Your task to perform on an android device: turn off translation in the chrome app Image 0: 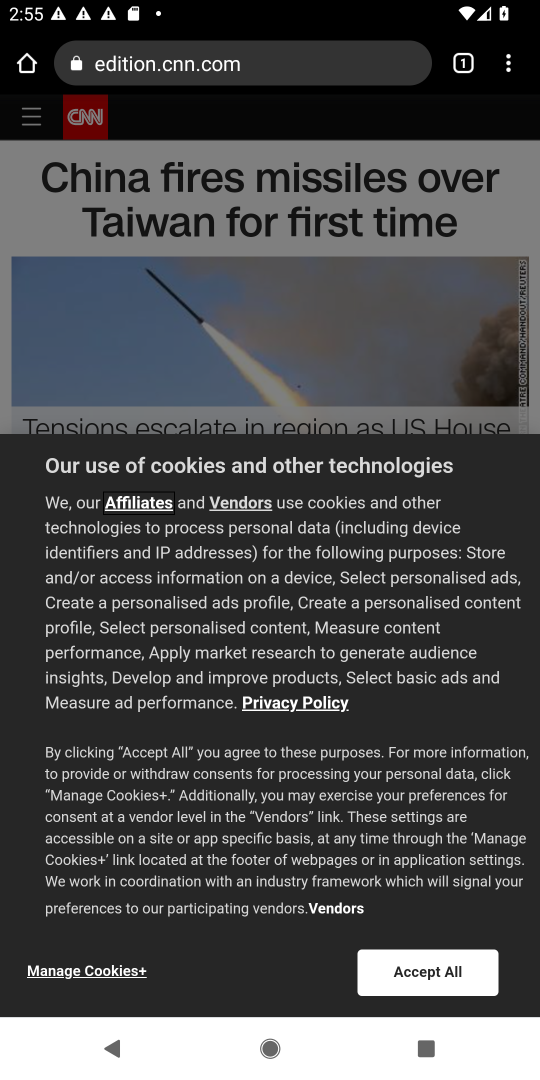
Step 0: press home button
Your task to perform on an android device: turn off translation in the chrome app Image 1: 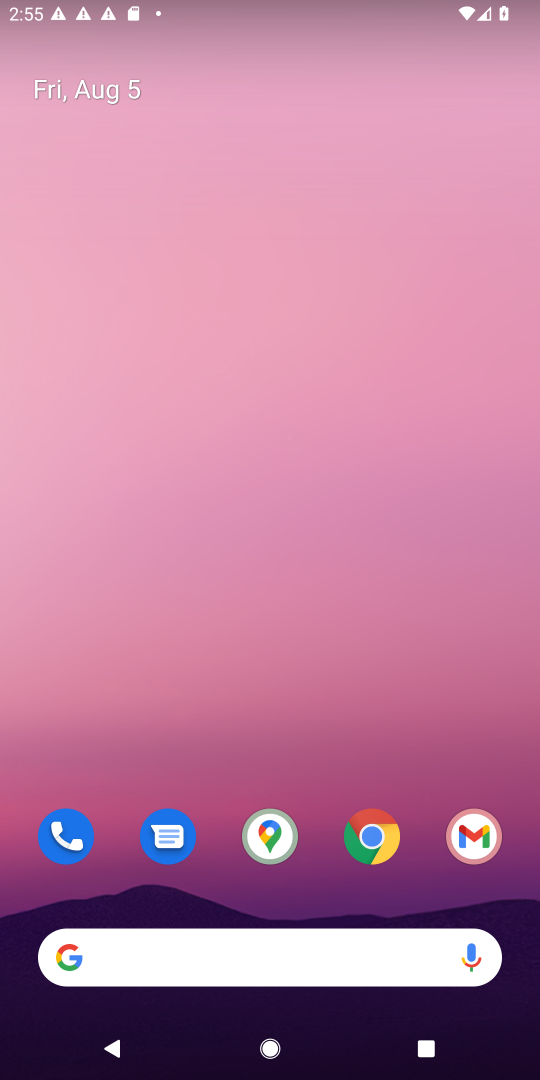
Step 1: drag from (355, 864) to (308, 23)
Your task to perform on an android device: turn off translation in the chrome app Image 2: 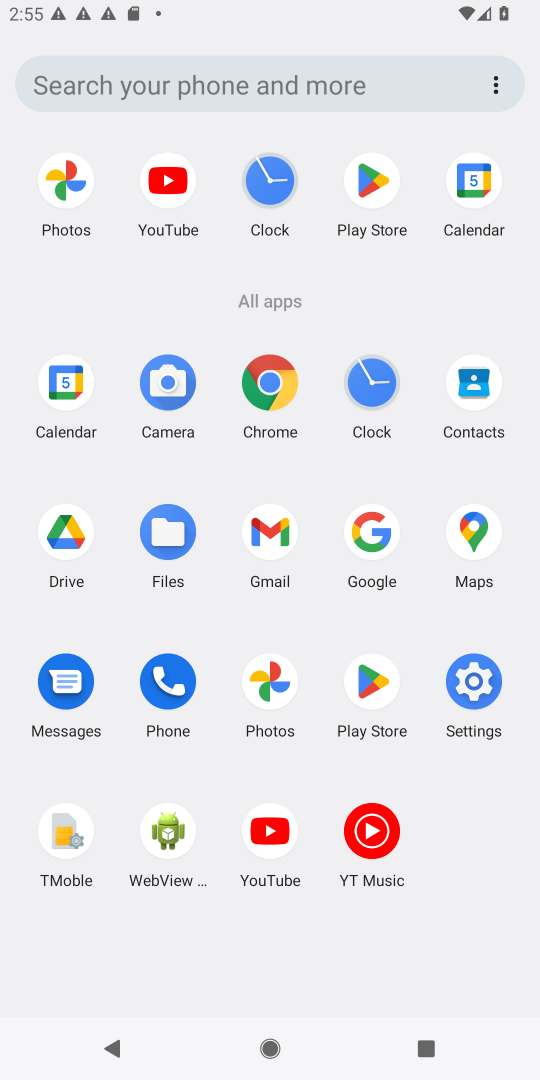
Step 2: click (290, 374)
Your task to perform on an android device: turn off translation in the chrome app Image 3: 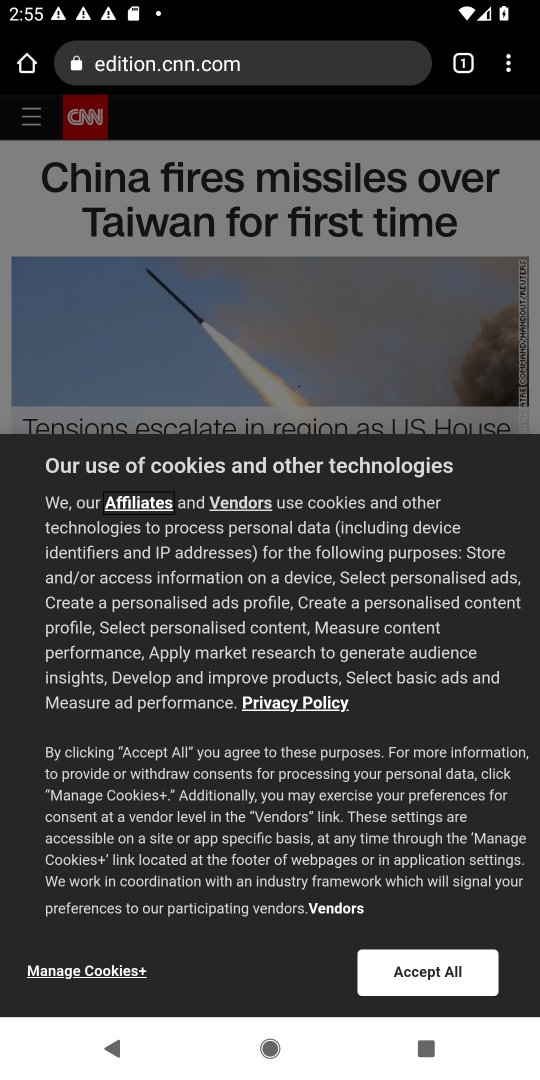
Step 3: drag from (500, 72) to (361, 752)
Your task to perform on an android device: turn off translation in the chrome app Image 4: 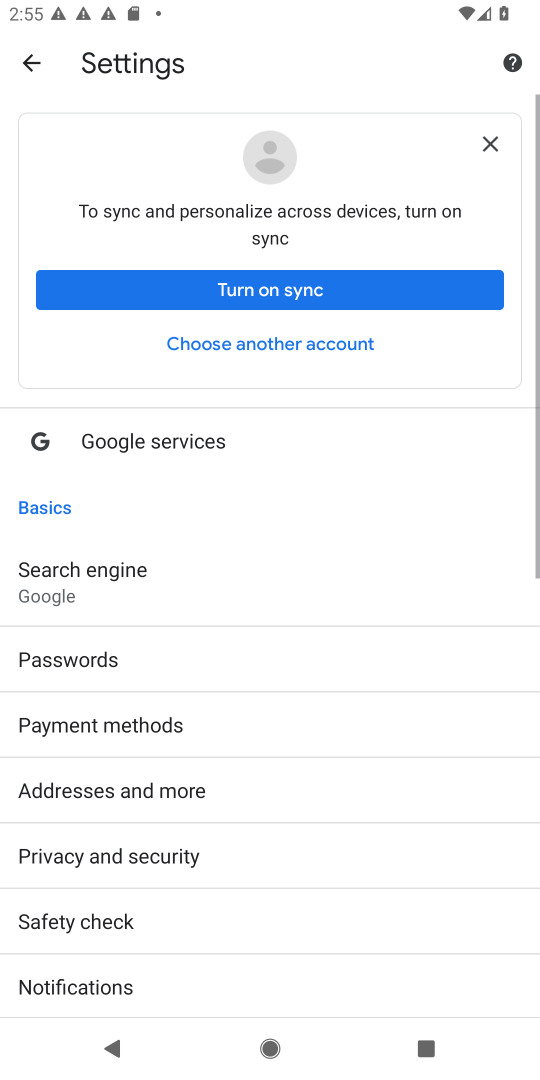
Step 4: drag from (251, 884) to (264, 181)
Your task to perform on an android device: turn off translation in the chrome app Image 5: 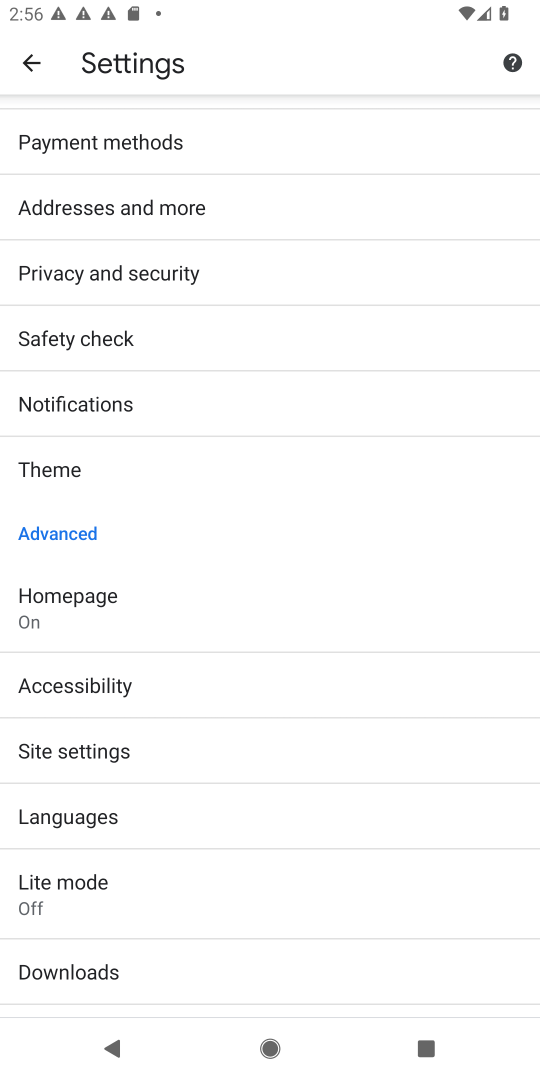
Step 5: click (58, 803)
Your task to perform on an android device: turn off translation in the chrome app Image 6: 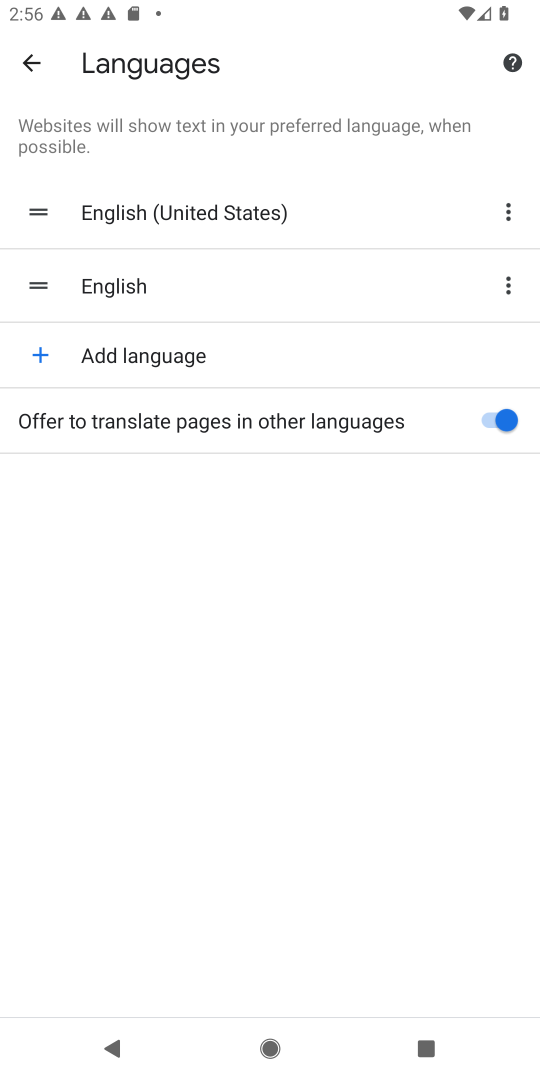
Step 6: click (507, 414)
Your task to perform on an android device: turn off translation in the chrome app Image 7: 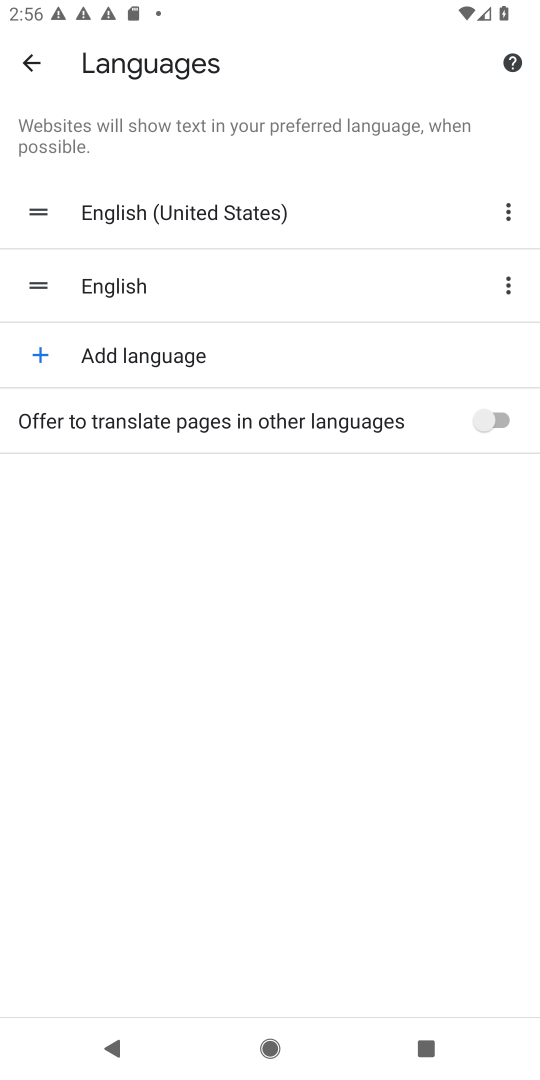
Step 7: task complete